Your task to perform on an android device: Is it going to rain today? Image 0: 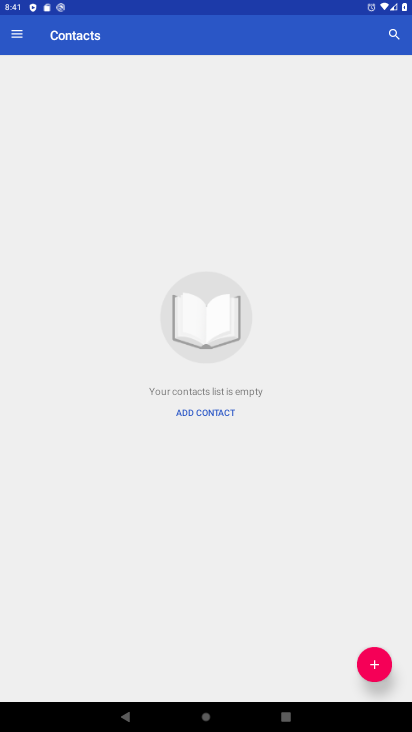
Step 0: press home button
Your task to perform on an android device: Is it going to rain today? Image 1: 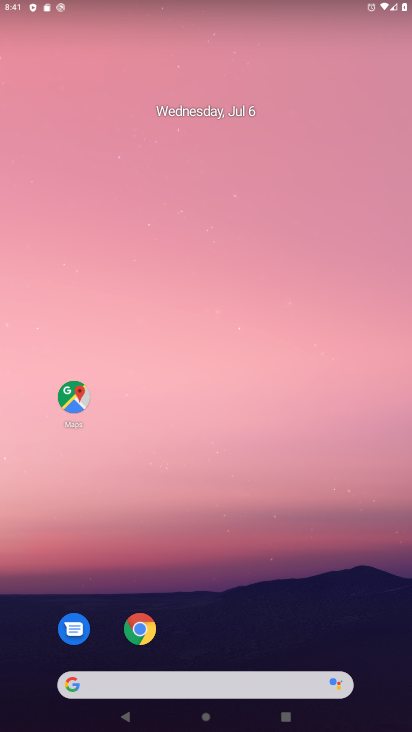
Step 1: click (201, 683)
Your task to perform on an android device: Is it going to rain today? Image 2: 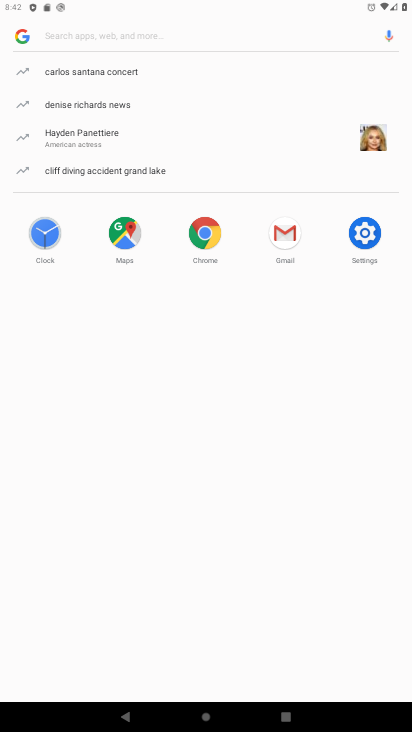
Step 2: type "weather today"
Your task to perform on an android device: Is it going to rain today? Image 3: 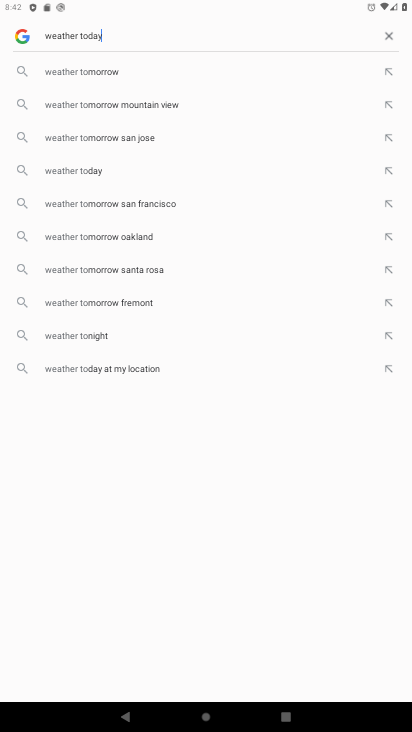
Step 3: type ""
Your task to perform on an android device: Is it going to rain today? Image 4: 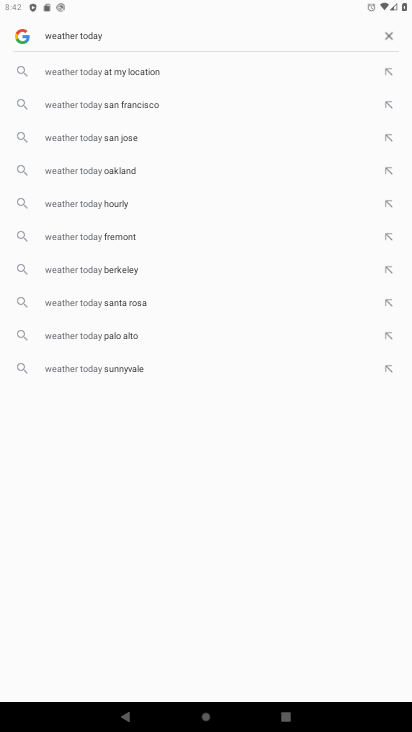
Step 4: click (156, 64)
Your task to perform on an android device: Is it going to rain today? Image 5: 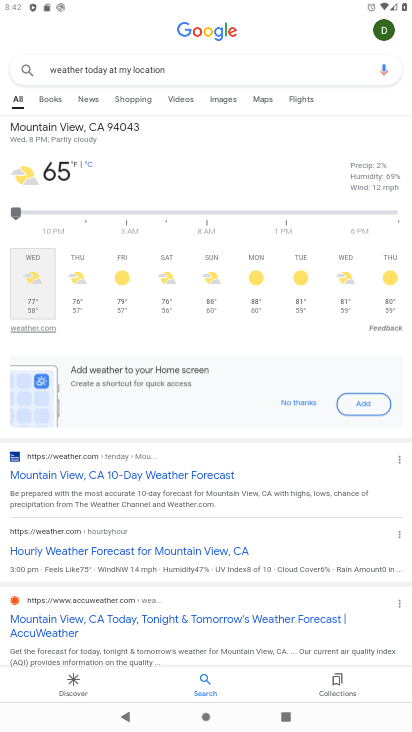
Step 5: task complete